Your task to perform on an android device: Open my contact list Image 0: 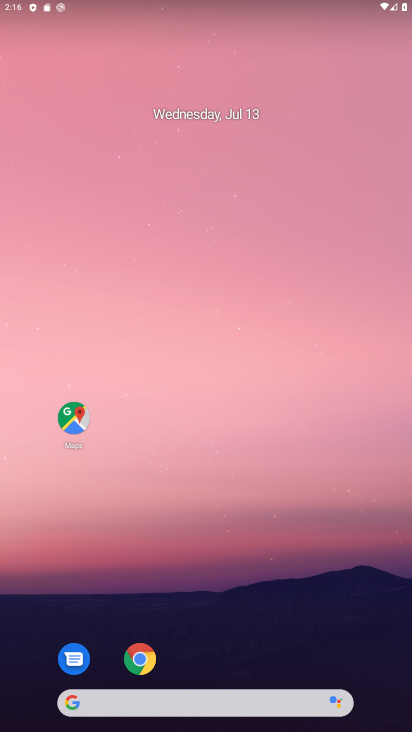
Step 0: drag from (208, 661) to (233, 75)
Your task to perform on an android device: Open my contact list Image 1: 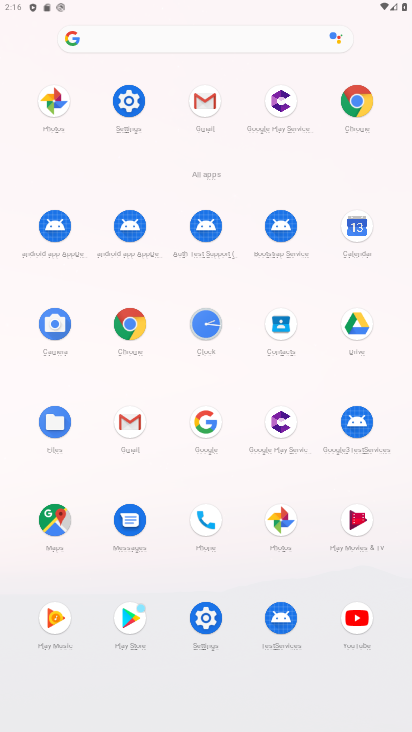
Step 1: click (283, 324)
Your task to perform on an android device: Open my contact list Image 2: 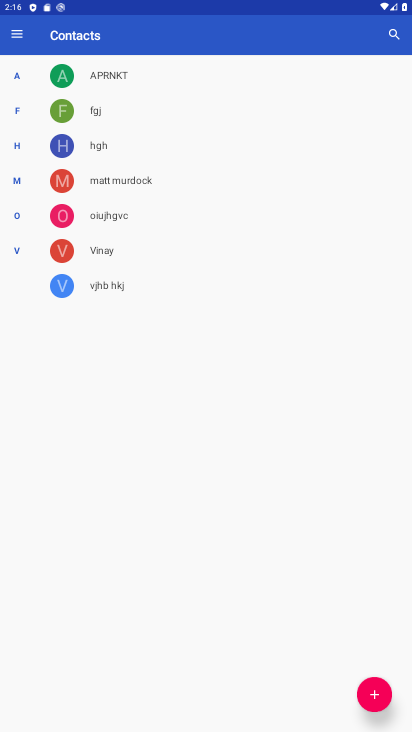
Step 2: task complete